Your task to perform on an android device: Open Google Chrome Image 0: 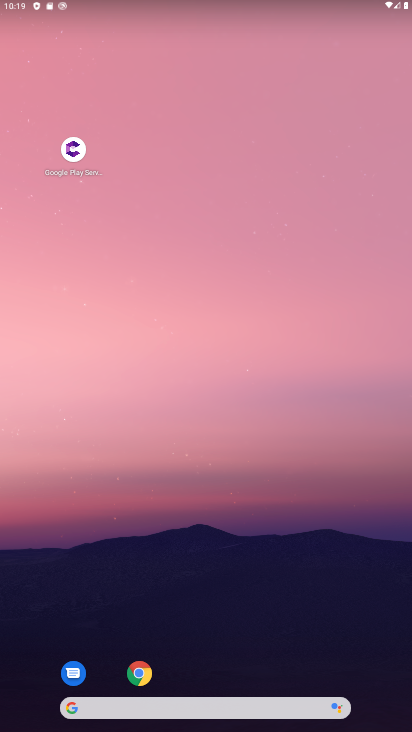
Step 0: click (138, 673)
Your task to perform on an android device: Open Google Chrome Image 1: 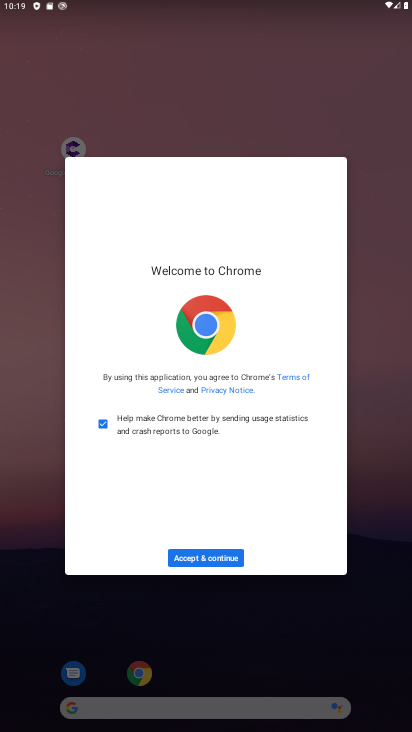
Step 1: click (199, 557)
Your task to perform on an android device: Open Google Chrome Image 2: 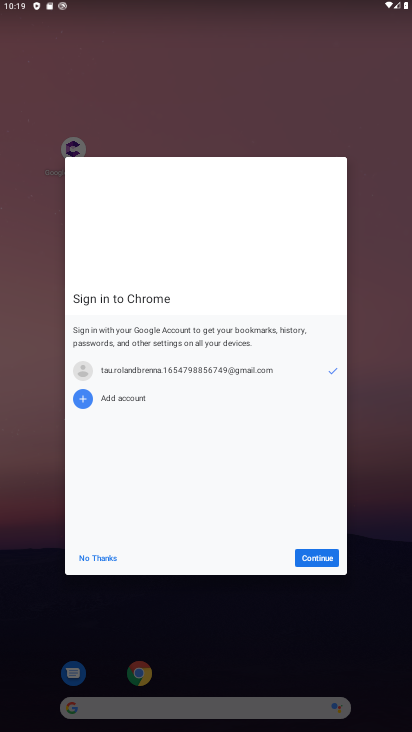
Step 2: click (311, 560)
Your task to perform on an android device: Open Google Chrome Image 3: 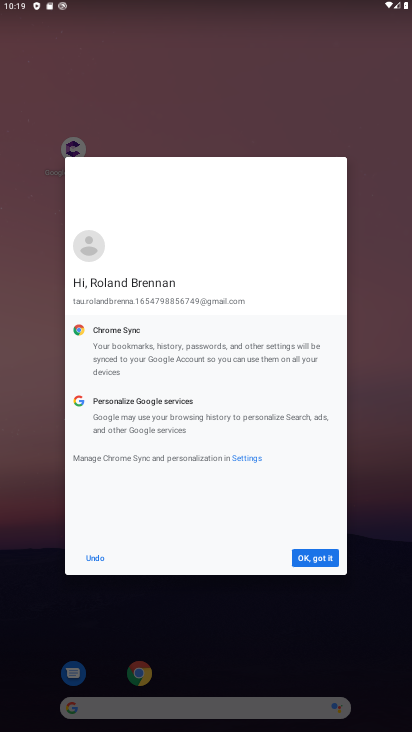
Step 3: click (305, 554)
Your task to perform on an android device: Open Google Chrome Image 4: 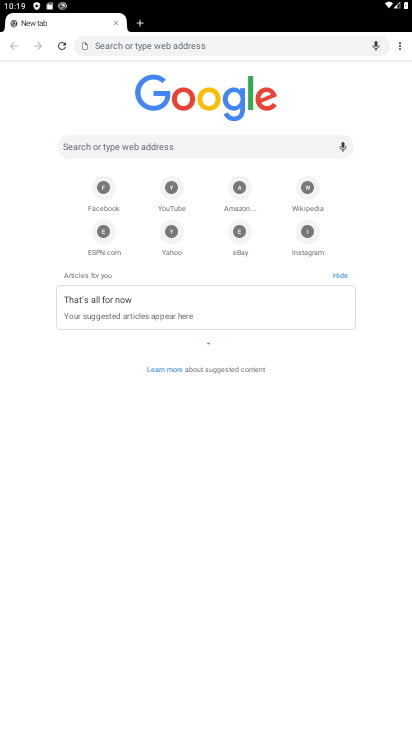
Step 4: task complete